Your task to perform on an android device: What's the weather going to be tomorrow? Image 0: 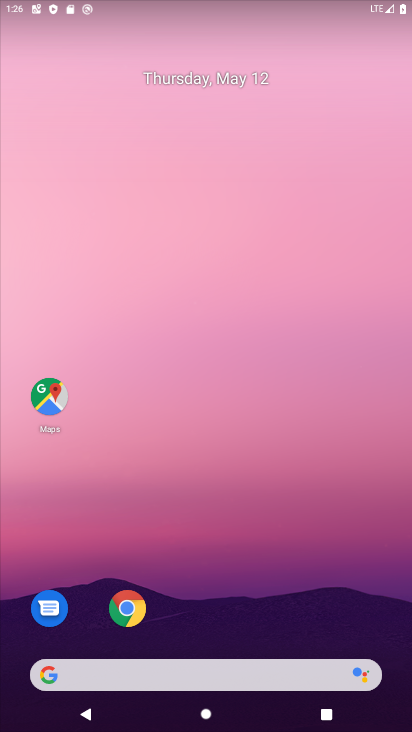
Step 0: click (114, 677)
Your task to perform on an android device: What's the weather going to be tomorrow? Image 1: 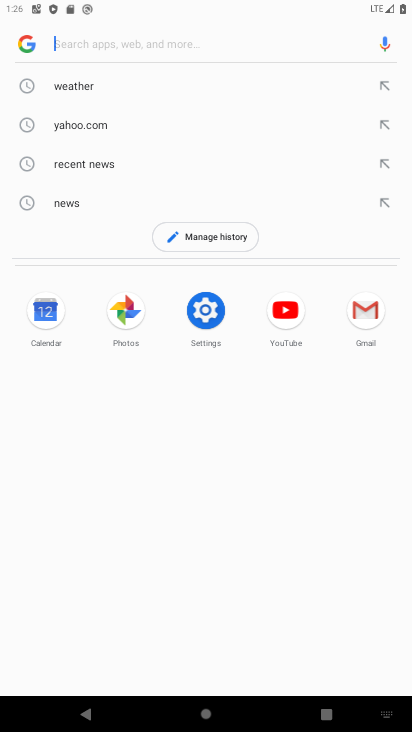
Step 1: click (63, 87)
Your task to perform on an android device: What's the weather going to be tomorrow? Image 2: 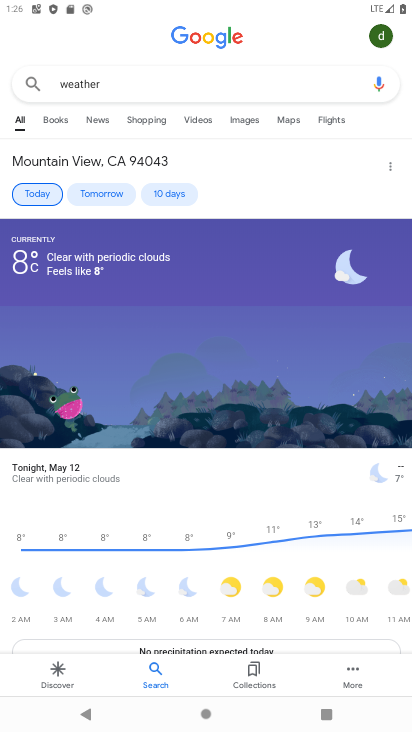
Step 2: click (100, 197)
Your task to perform on an android device: What's the weather going to be tomorrow? Image 3: 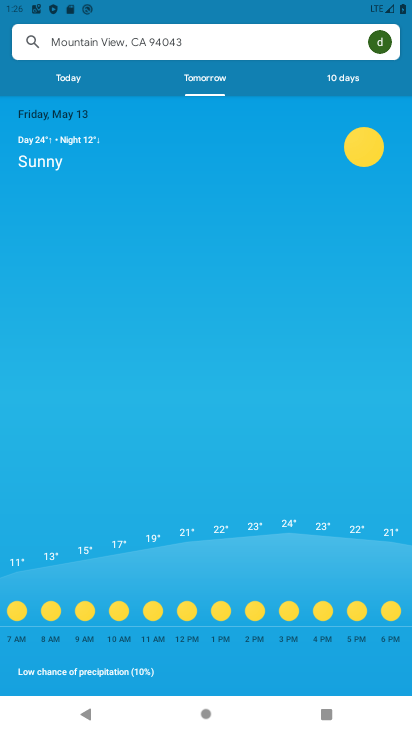
Step 3: task complete